Your task to perform on an android device: Open the Play Movies app and select the watchlist tab. Image 0: 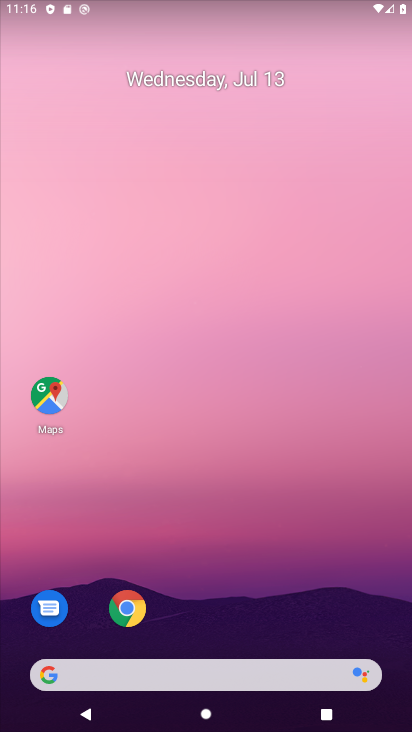
Step 0: drag from (172, 656) to (220, 262)
Your task to perform on an android device: Open the Play Movies app and select the watchlist tab. Image 1: 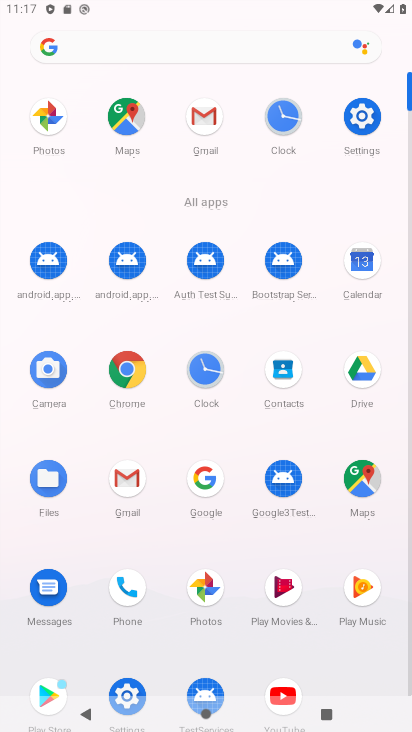
Step 1: click (292, 582)
Your task to perform on an android device: Open the Play Movies app and select the watchlist tab. Image 2: 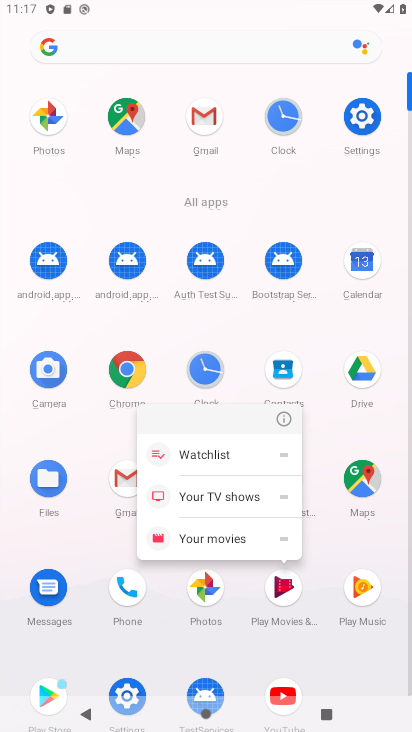
Step 2: click (283, 414)
Your task to perform on an android device: Open the Play Movies app and select the watchlist tab. Image 3: 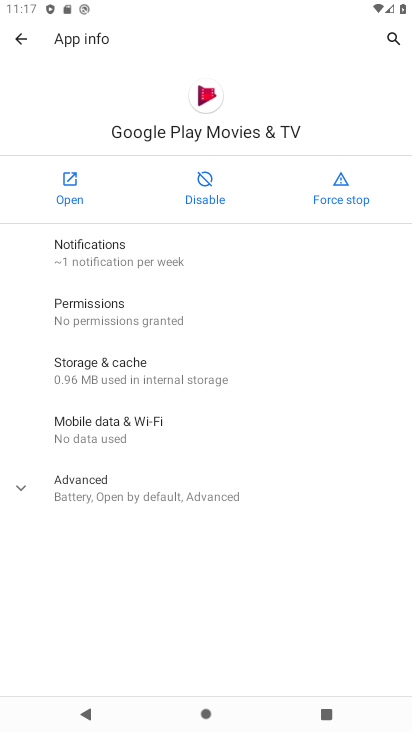
Step 3: click (81, 179)
Your task to perform on an android device: Open the Play Movies app and select the watchlist tab. Image 4: 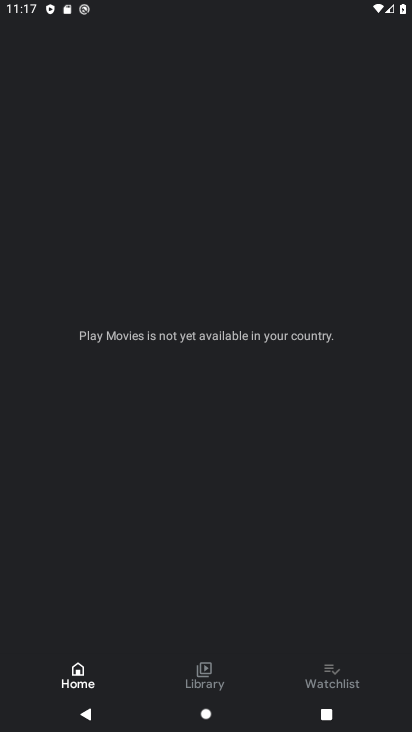
Step 4: drag from (243, 638) to (310, 390)
Your task to perform on an android device: Open the Play Movies app and select the watchlist tab. Image 5: 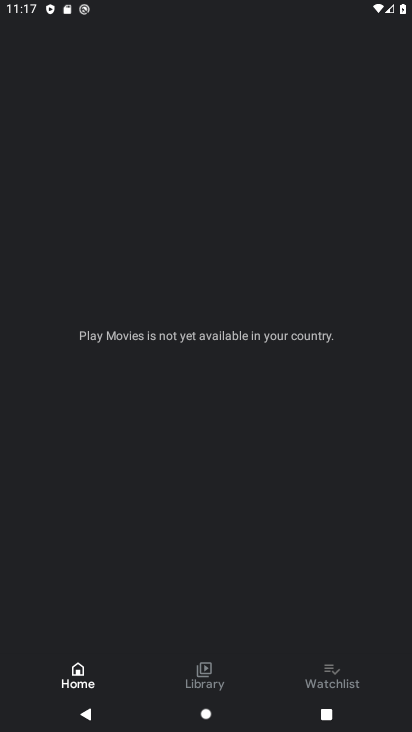
Step 5: click (327, 670)
Your task to perform on an android device: Open the Play Movies app and select the watchlist tab. Image 6: 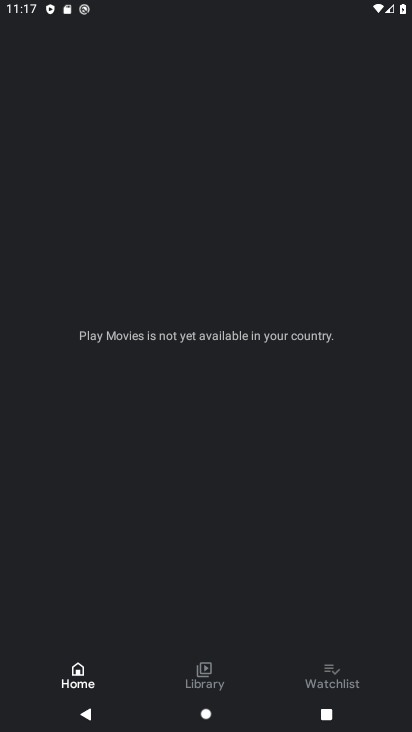
Step 6: click (327, 670)
Your task to perform on an android device: Open the Play Movies app and select the watchlist tab. Image 7: 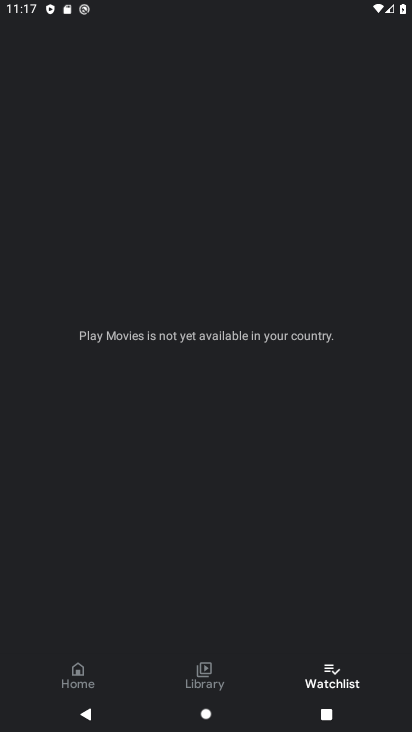
Step 7: task complete